Your task to perform on an android device: turn vacation reply on in the gmail app Image 0: 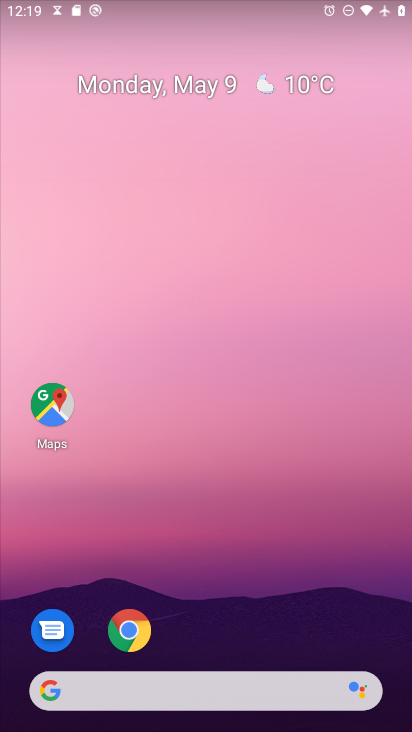
Step 0: drag from (189, 700) to (275, 222)
Your task to perform on an android device: turn vacation reply on in the gmail app Image 1: 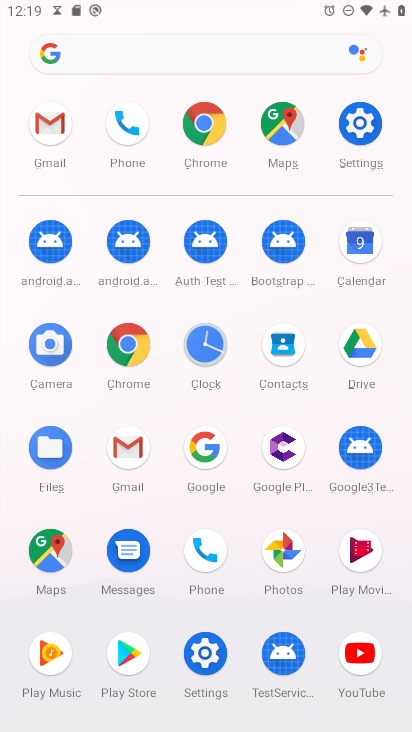
Step 1: click (53, 130)
Your task to perform on an android device: turn vacation reply on in the gmail app Image 2: 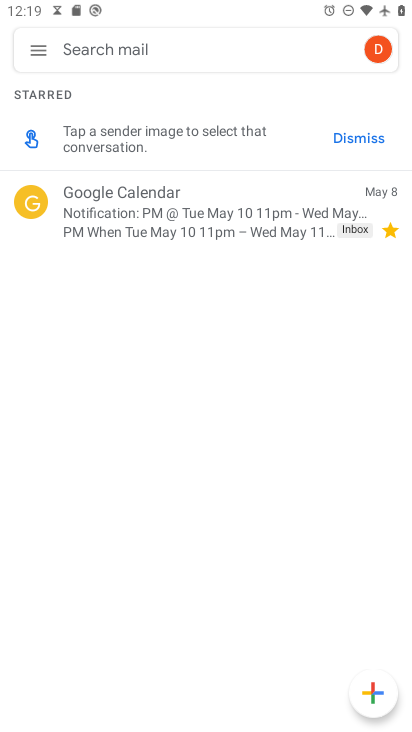
Step 2: click (40, 53)
Your task to perform on an android device: turn vacation reply on in the gmail app Image 3: 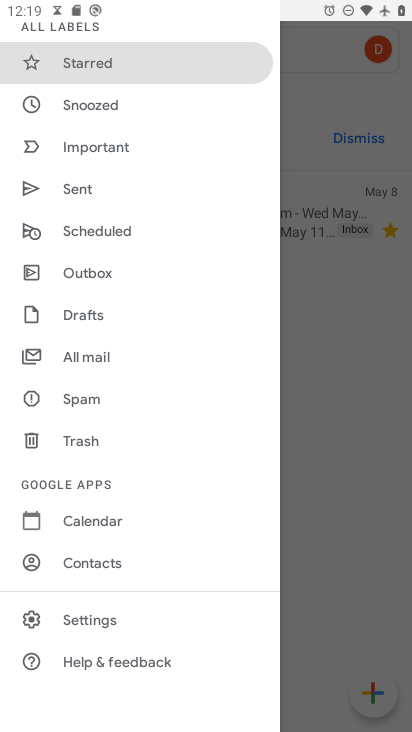
Step 3: click (93, 621)
Your task to perform on an android device: turn vacation reply on in the gmail app Image 4: 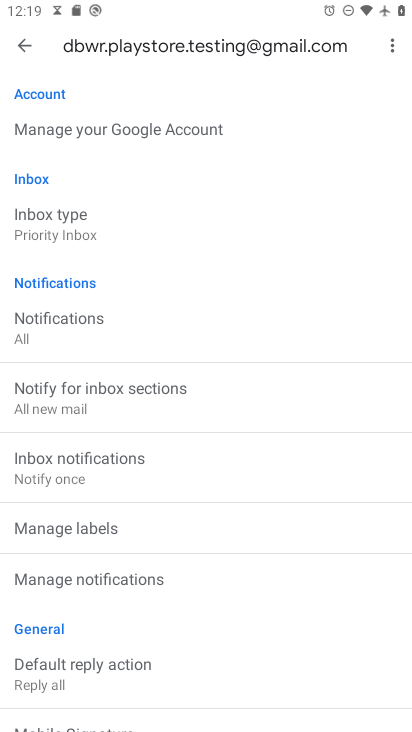
Step 4: drag from (193, 664) to (233, 368)
Your task to perform on an android device: turn vacation reply on in the gmail app Image 5: 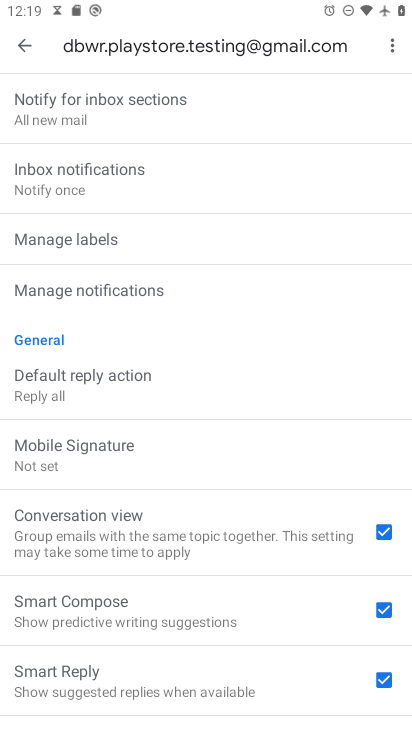
Step 5: drag from (274, 614) to (279, 205)
Your task to perform on an android device: turn vacation reply on in the gmail app Image 6: 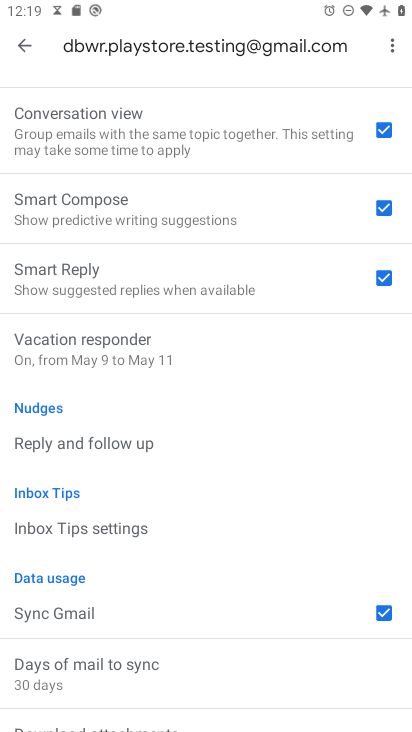
Step 6: click (116, 344)
Your task to perform on an android device: turn vacation reply on in the gmail app Image 7: 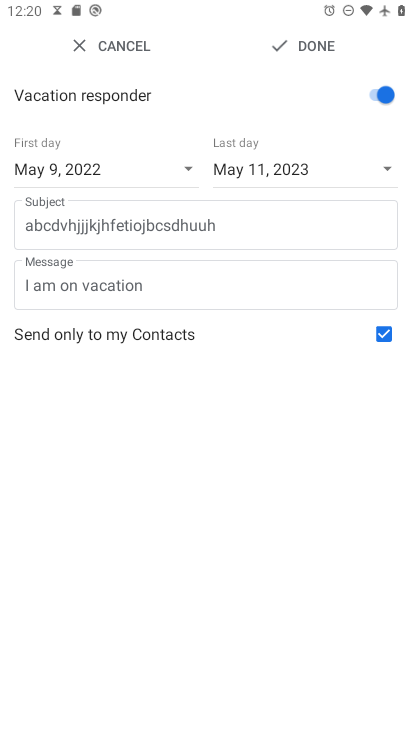
Step 7: task complete